Your task to perform on an android device: turn on notifications settings in the gmail app Image 0: 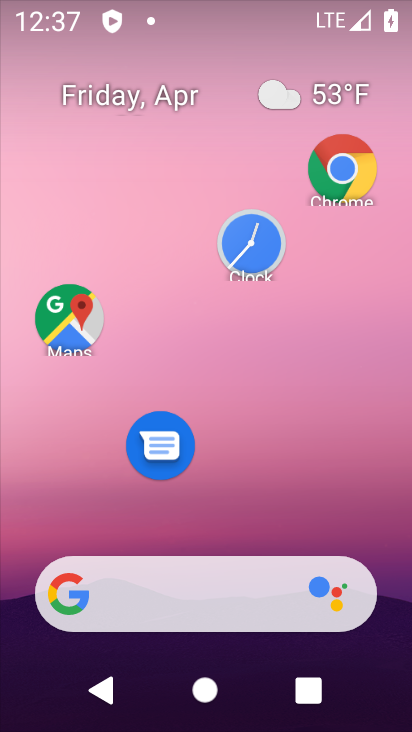
Step 0: drag from (332, 530) to (219, 123)
Your task to perform on an android device: turn on notifications settings in the gmail app Image 1: 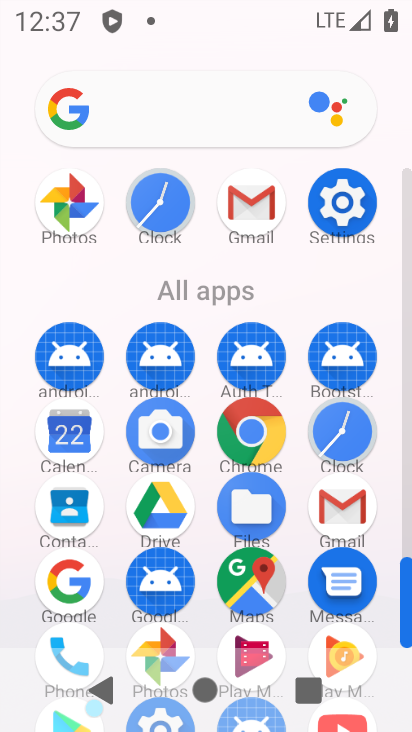
Step 1: click (254, 231)
Your task to perform on an android device: turn on notifications settings in the gmail app Image 2: 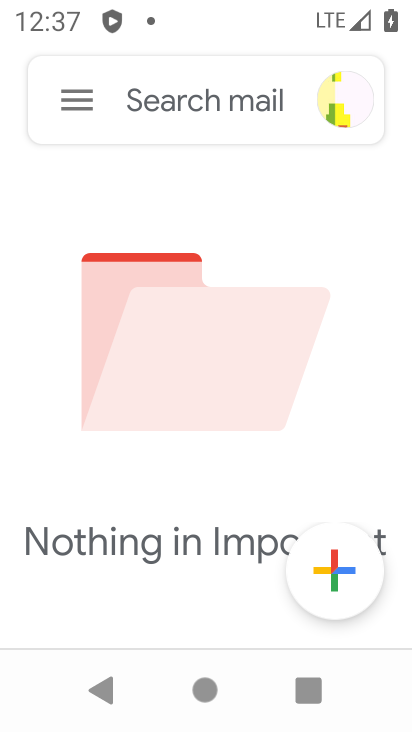
Step 2: click (93, 109)
Your task to perform on an android device: turn on notifications settings in the gmail app Image 3: 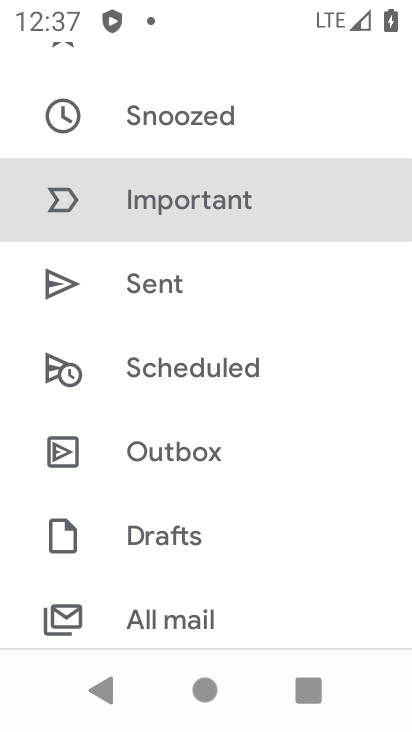
Step 3: drag from (121, 343) to (285, 653)
Your task to perform on an android device: turn on notifications settings in the gmail app Image 4: 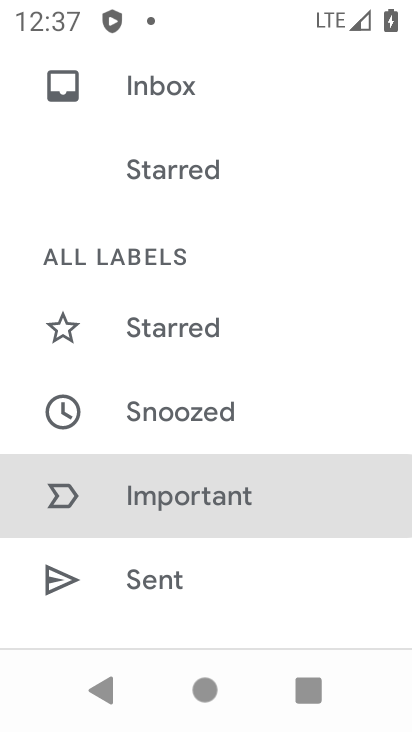
Step 4: drag from (245, 550) to (174, 0)
Your task to perform on an android device: turn on notifications settings in the gmail app Image 5: 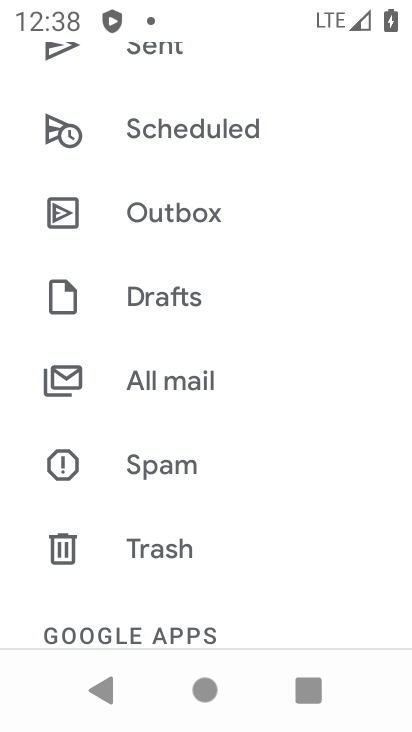
Step 5: drag from (274, 495) to (221, 43)
Your task to perform on an android device: turn on notifications settings in the gmail app Image 6: 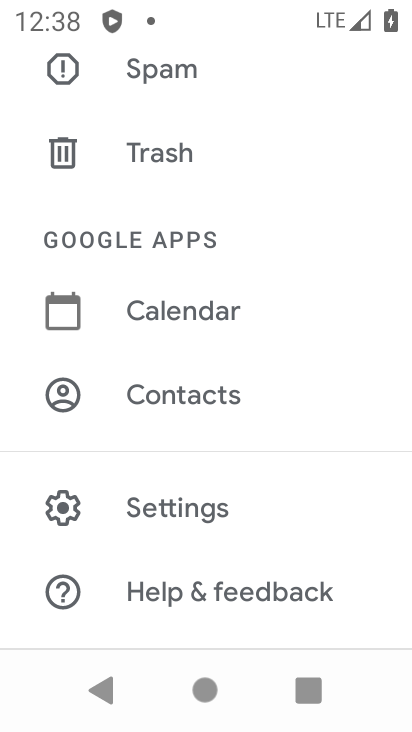
Step 6: click (315, 509)
Your task to perform on an android device: turn on notifications settings in the gmail app Image 7: 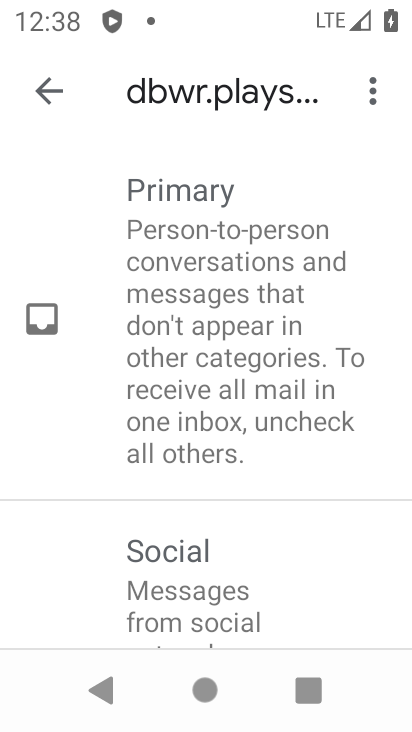
Step 7: drag from (315, 509) to (247, 54)
Your task to perform on an android device: turn on notifications settings in the gmail app Image 8: 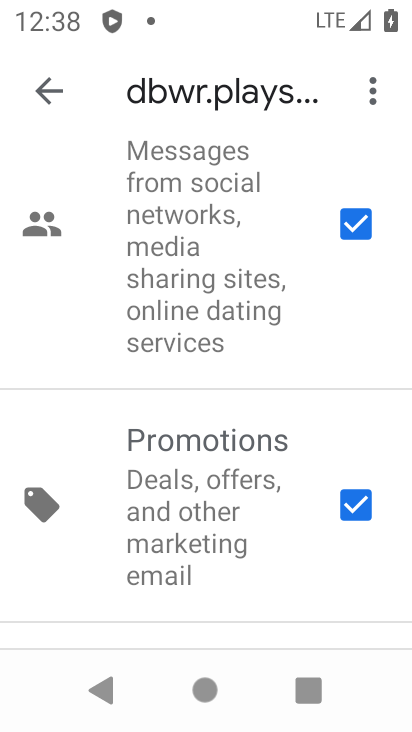
Step 8: drag from (226, 482) to (243, 139)
Your task to perform on an android device: turn on notifications settings in the gmail app Image 9: 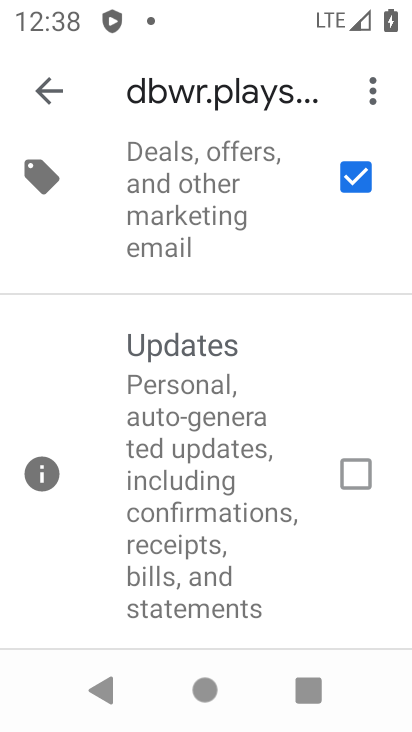
Step 9: drag from (203, 503) to (198, 165)
Your task to perform on an android device: turn on notifications settings in the gmail app Image 10: 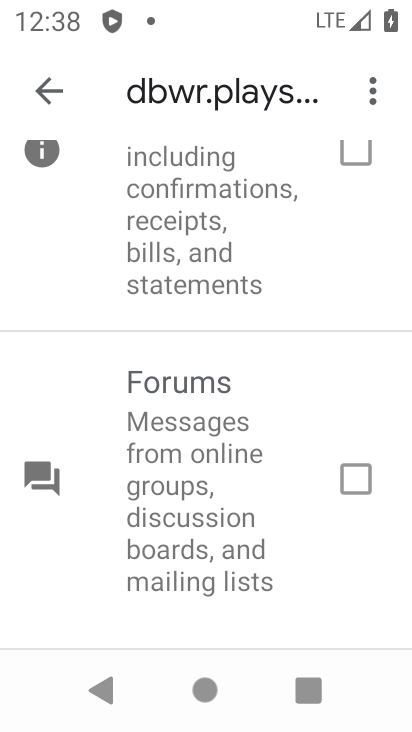
Step 10: drag from (230, 557) to (118, 123)
Your task to perform on an android device: turn on notifications settings in the gmail app Image 11: 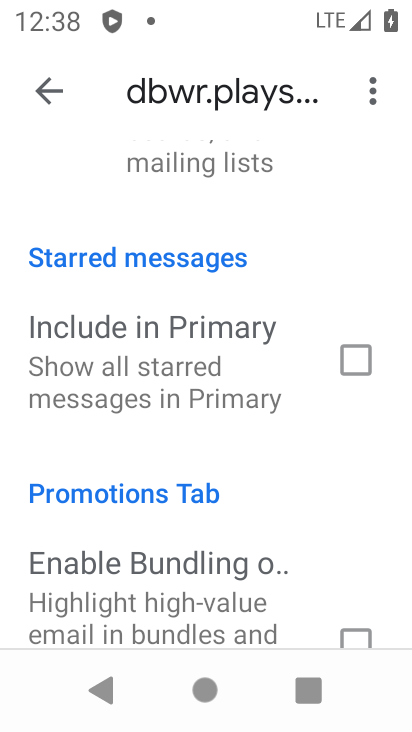
Step 11: click (60, 103)
Your task to perform on an android device: turn on notifications settings in the gmail app Image 12: 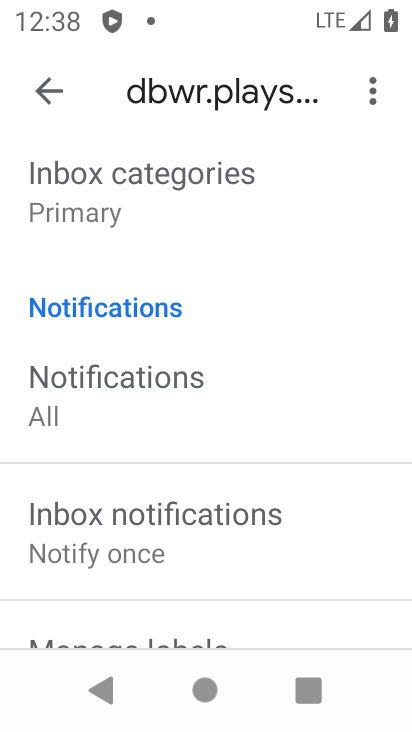
Step 12: drag from (105, 256) to (225, 576)
Your task to perform on an android device: turn on notifications settings in the gmail app Image 13: 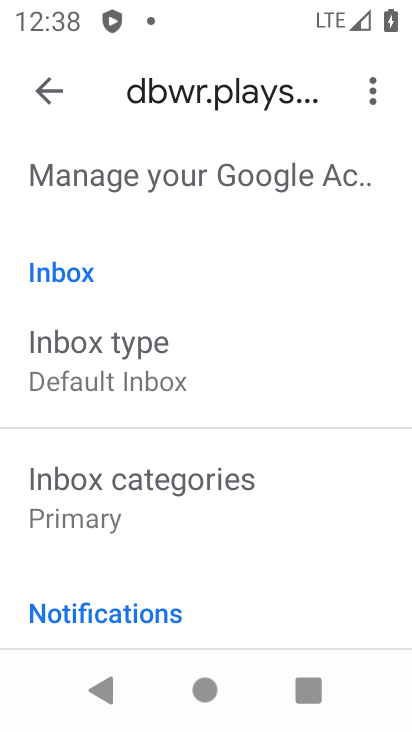
Step 13: click (34, 83)
Your task to perform on an android device: turn on notifications settings in the gmail app Image 14: 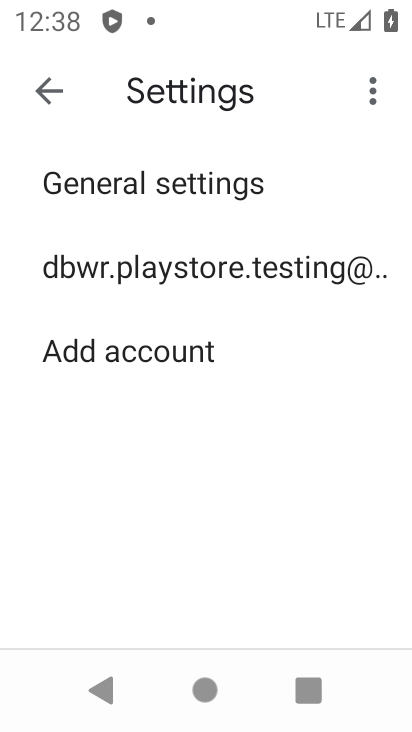
Step 14: click (128, 186)
Your task to perform on an android device: turn on notifications settings in the gmail app Image 15: 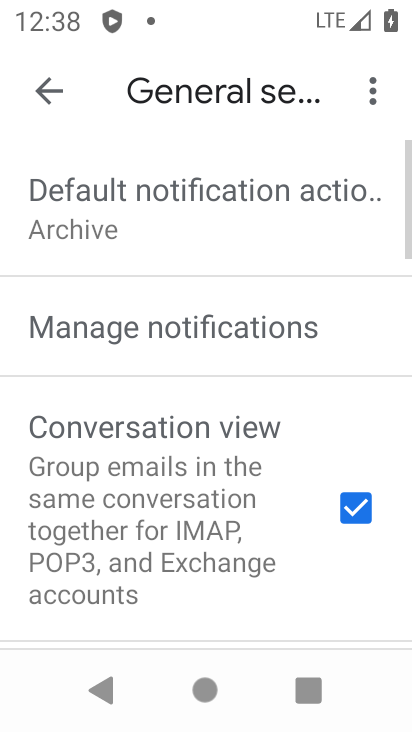
Step 15: drag from (192, 418) to (183, 359)
Your task to perform on an android device: turn on notifications settings in the gmail app Image 16: 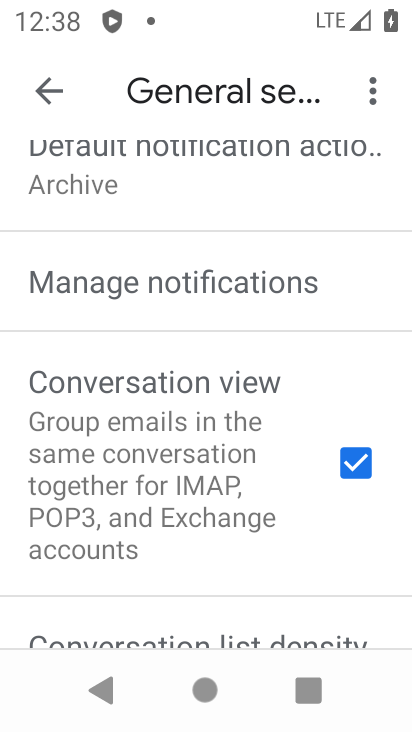
Step 16: click (240, 253)
Your task to perform on an android device: turn on notifications settings in the gmail app Image 17: 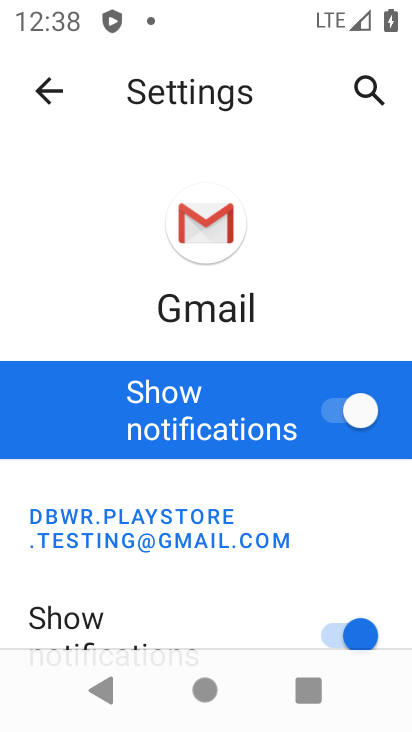
Step 17: task complete